Your task to perform on an android device: Do I have any events tomorrow? Image 0: 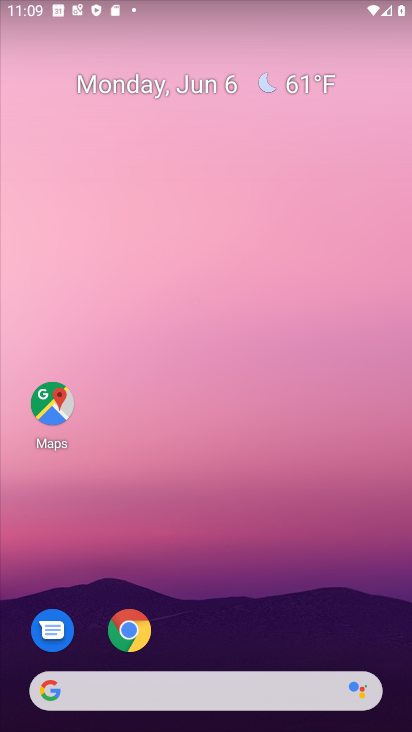
Step 0: drag from (271, 592) to (252, 170)
Your task to perform on an android device: Do I have any events tomorrow? Image 1: 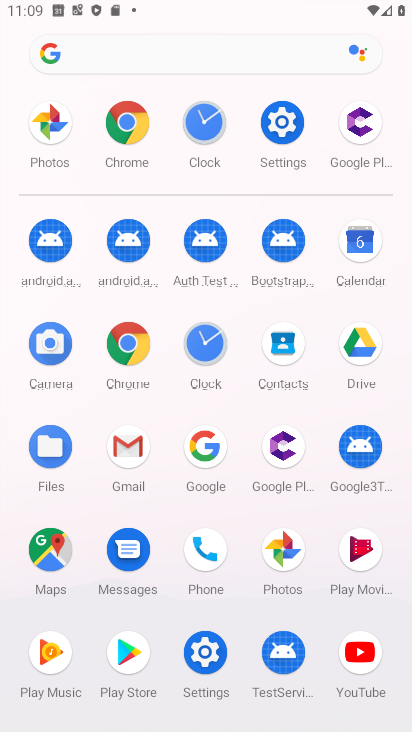
Step 1: click (352, 242)
Your task to perform on an android device: Do I have any events tomorrow? Image 2: 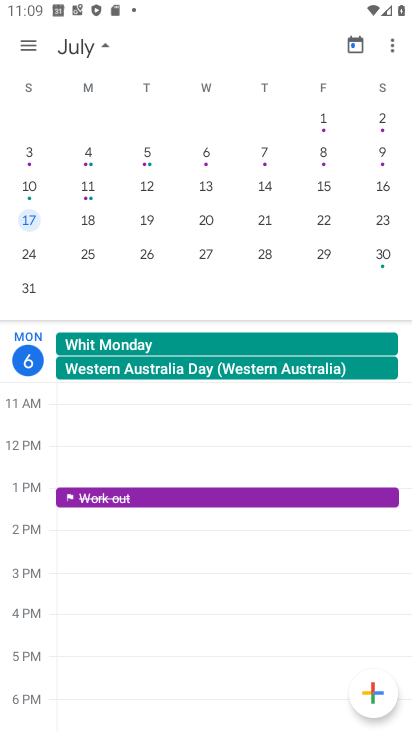
Step 2: drag from (48, 198) to (395, 204)
Your task to perform on an android device: Do I have any events tomorrow? Image 3: 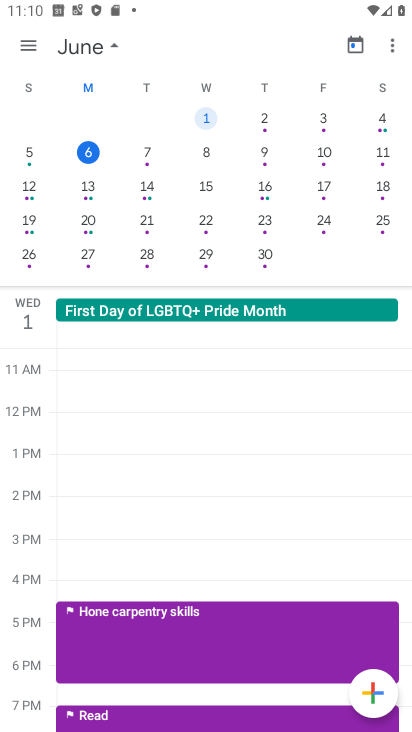
Step 3: click (153, 150)
Your task to perform on an android device: Do I have any events tomorrow? Image 4: 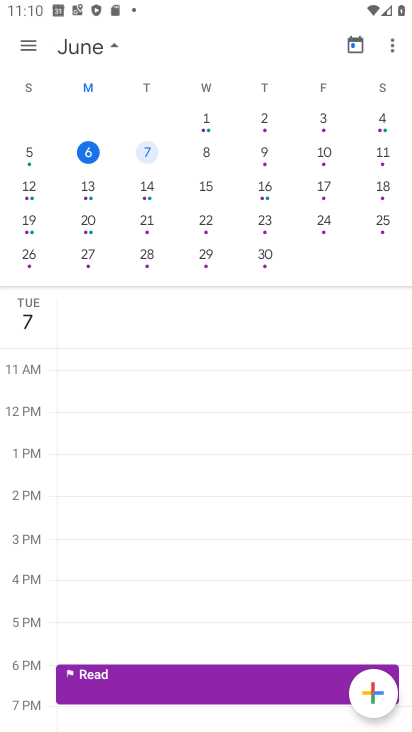
Step 4: click (29, 43)
Your task to perform on an android device: Do I have any events tomorrow? Image 5: 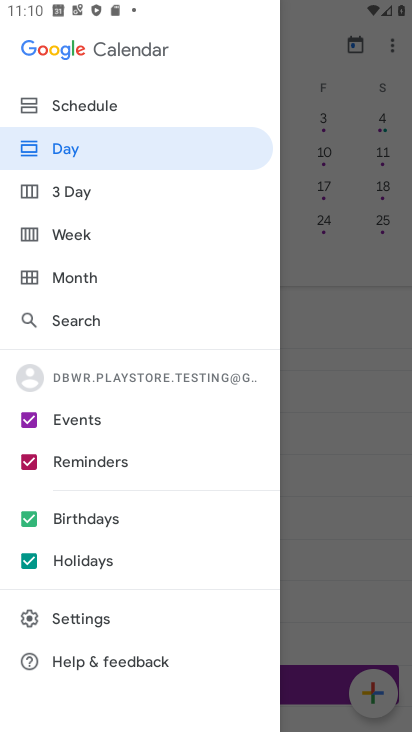
Step 5: click (94, 109)
Your task to perform on an android device: Do I have any events tomorrow? Image 6: 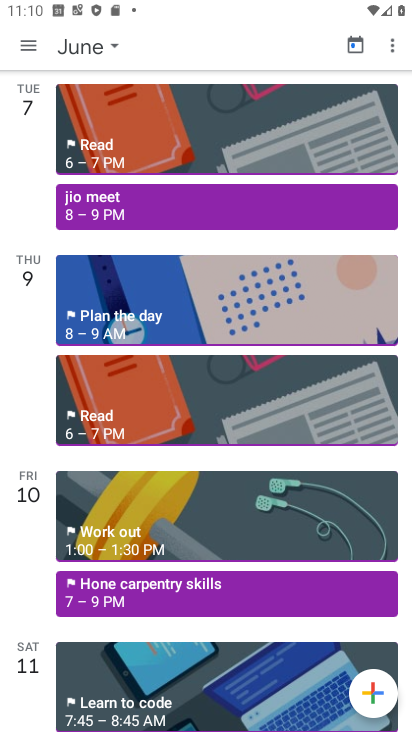
Step 6: task complete